Your task to perform on an android device: Go to Wikipedia Image 0: 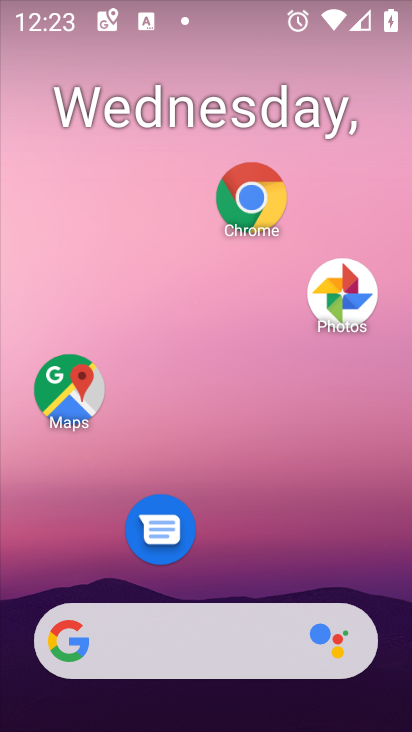
Step 0: drag from (154, 435) to (162, 99)
Your task to perform on an android device: Go to Wikipedia Image 1: 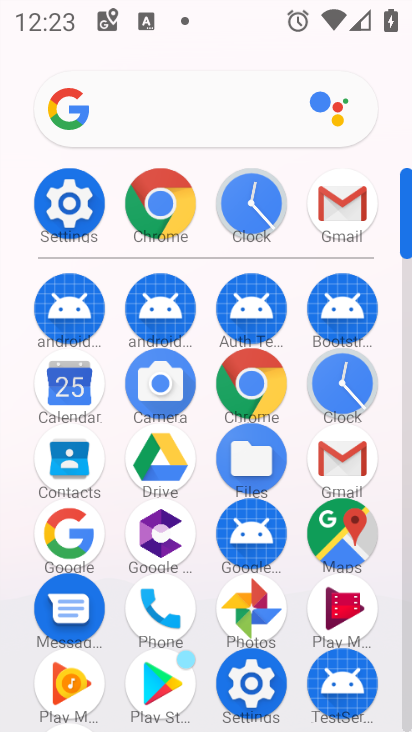
Step 1: click (250, 404)
Your task to perform on an android device: Go to Wikipedia Image 2: 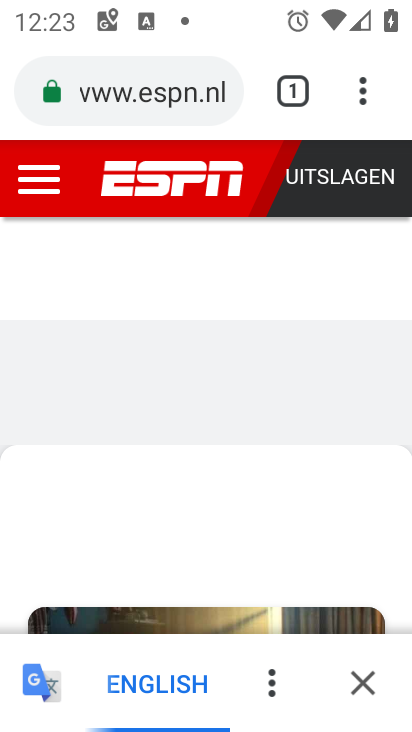
Step 2: click (106, 86)
Your task to perform on an android device: Go to Wikipedia Image 3: 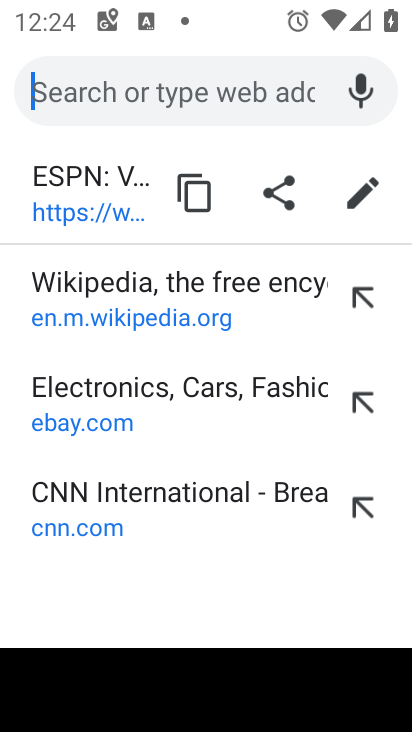
Step 3: type "wikipedia"
Your task to perform on an android device: Go to Wikipedia Image 4: 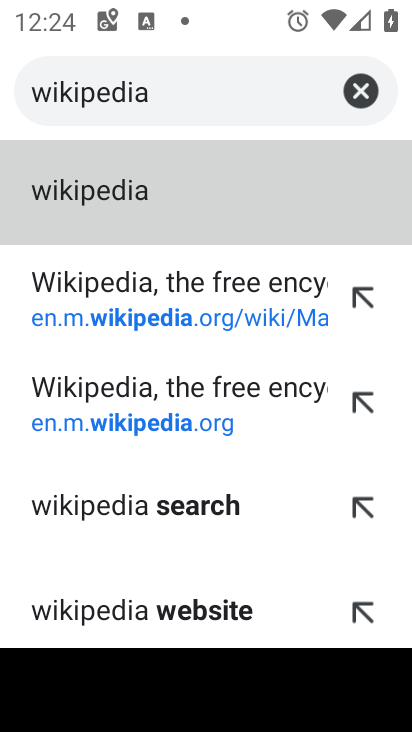
Step 4: click (177, 327)
Your task to perform on an android device: Go to Wikipedia Image 5: 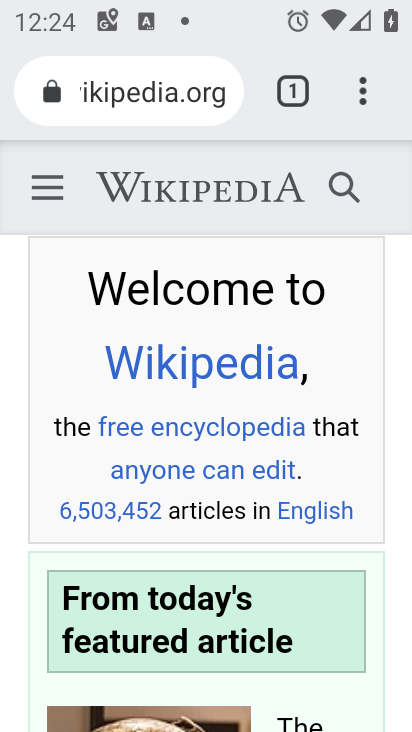
Step 5: task complete